Your task to perform on an android device: Open Google Image 0: 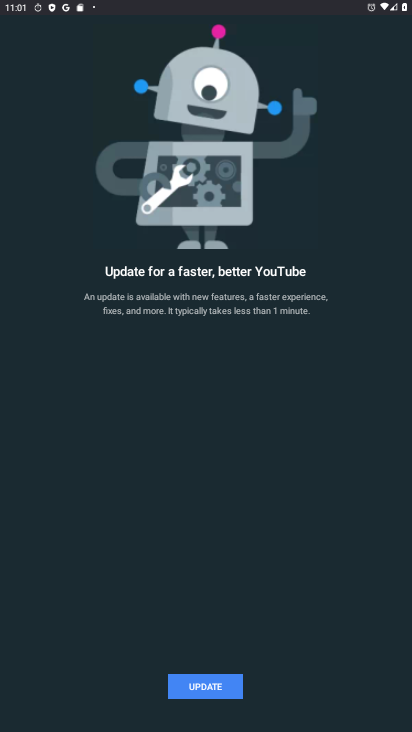
Step 0: press home button
Your task to perform on an android device: Open Google Image 1: 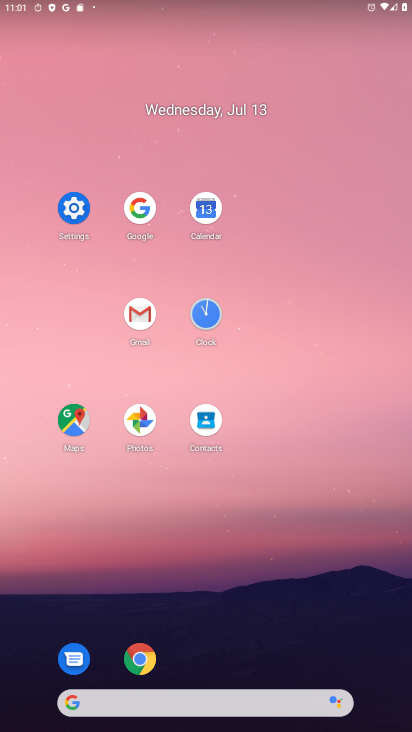
Step 1: click (145, 212)
Your task to perform on an android device: Open Google Image 2: 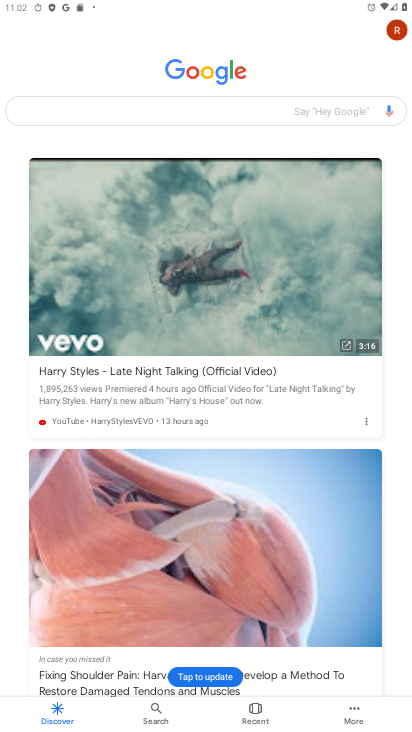
Step 2: task complete